Your task to perform on an android device: Search for macbook pro 15 inch on ebay.com, select the first entry, add it to the cart, then select checkout. Image 0: 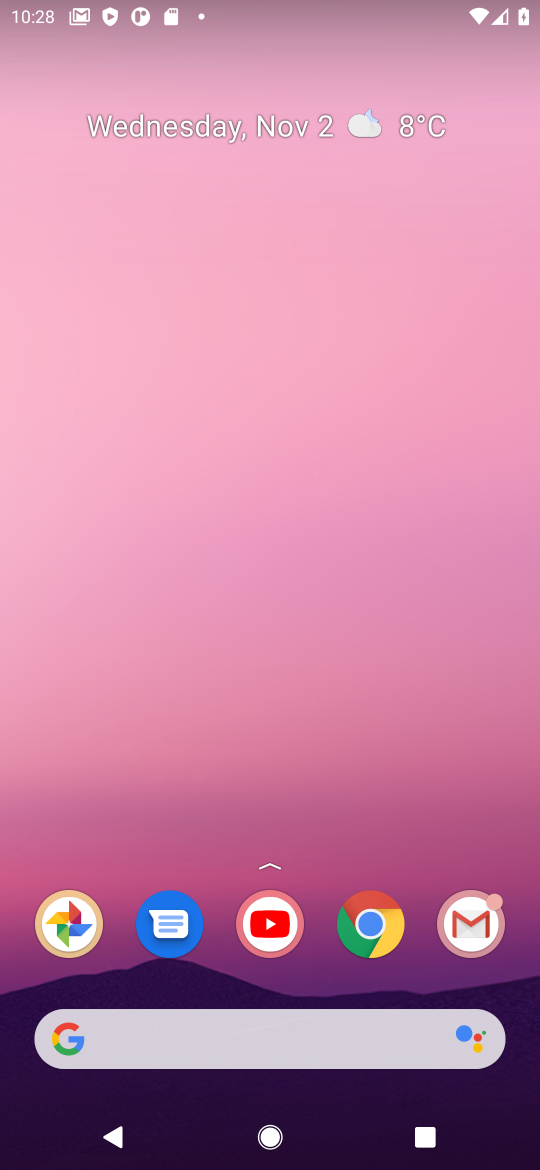
Step 0: click (373, 928)
Your task to perform on an android device: Search for macbook pro 15 inch on ebay.com, select the first entry, add it to the cart, then select checkout. Image 1: 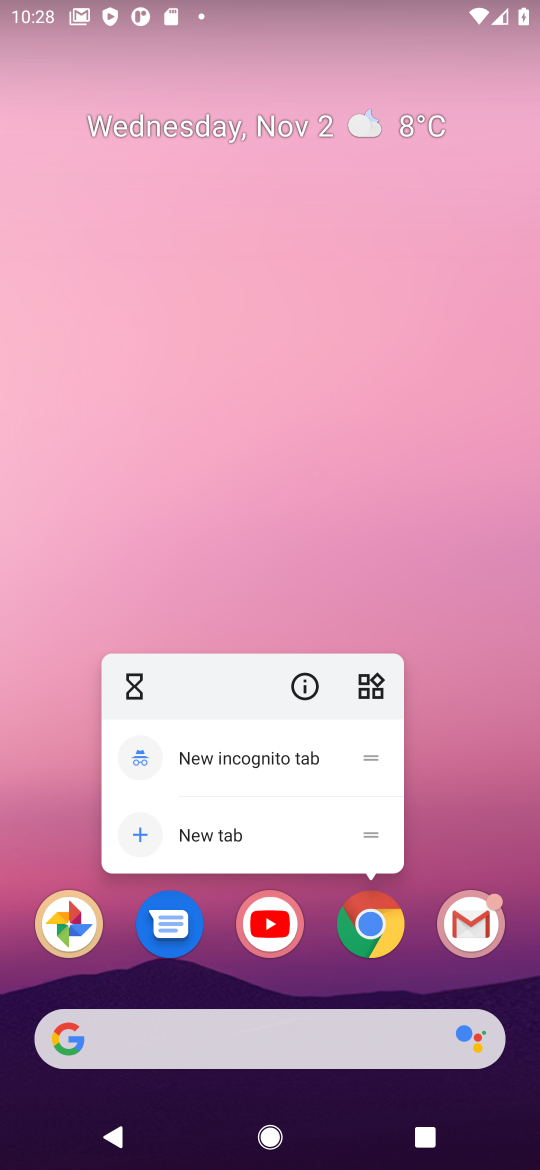
Step 1: click (395, 934)
Your task to perform on an android device: Search for macbook pro 15 inch on ebay.com, select the first entry, add it to the cart, then select checkout. Image 2: 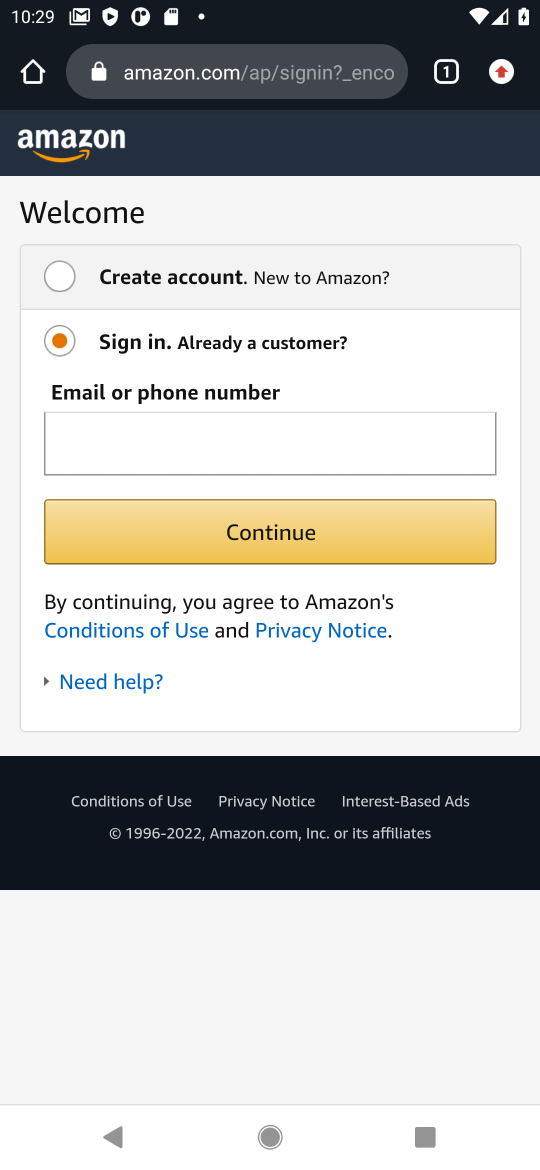
Step 2: click (149, 74)
Your task to perform on an android device: Search for macbook pro 15 inch on ebay.com, select the first entry, add it to the cart, then select checkout. Image 3: 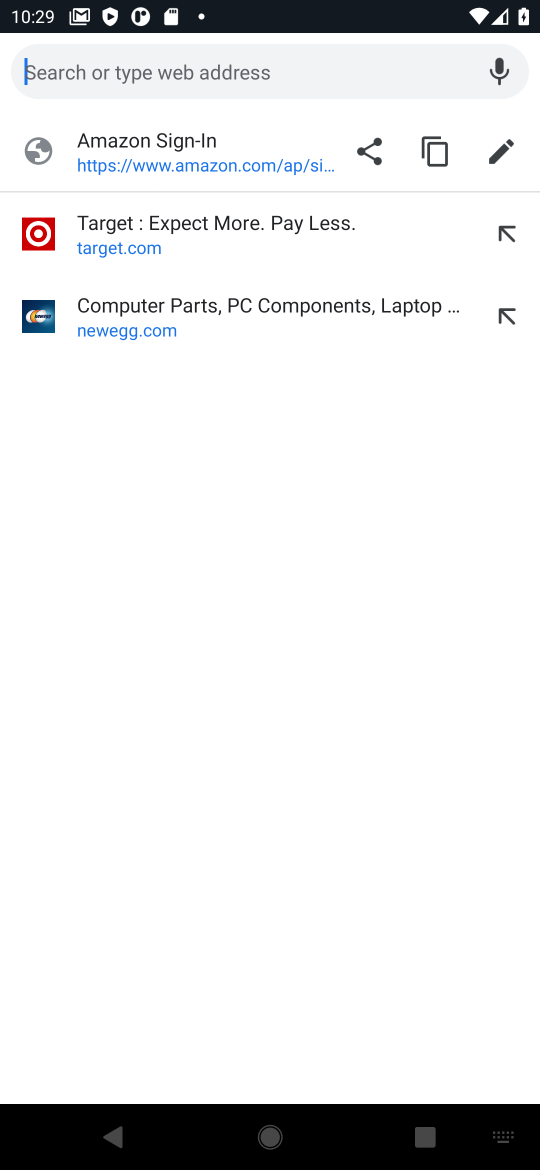
Step 3: type "ebay"
Your task to perform on an android device: Search for macbook pro 15 inch on ebay.com, select the first entry, add it to the cart, then select checkout. Image 4: 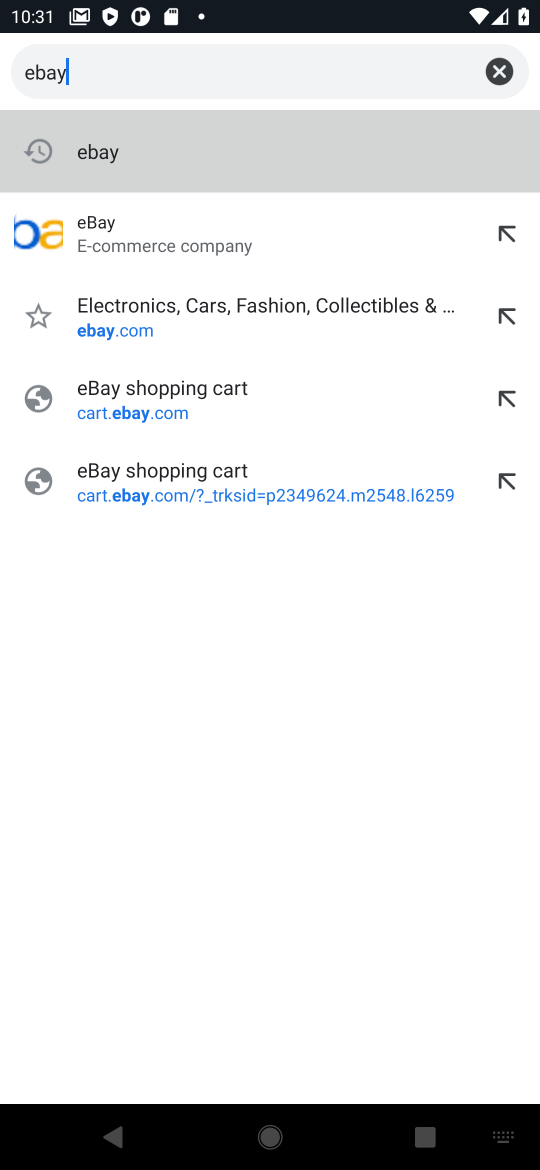
Step 4: click (106, 223)
Your task to perform on an android device: Search for macbook pro 15 inch on ebay.com, select the first entry, add it to the cart, then select checkout. Image 5: 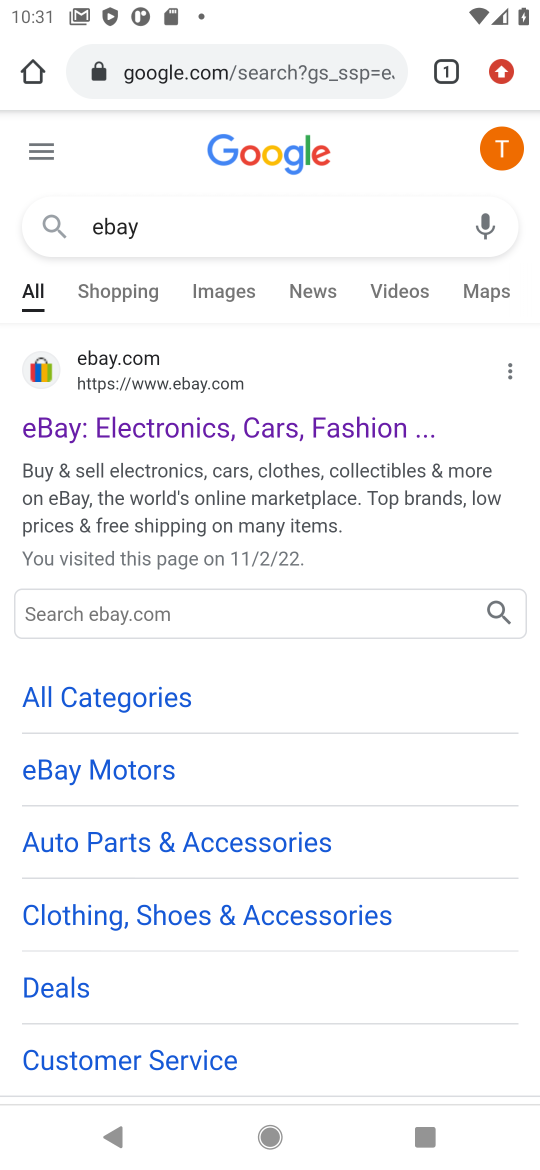
Step 5: click (151, 437)
Your task to perform on an android device: Search for macbook pro 15 inch on ebay.com, select the first entry, add it to the cart, then select checkout. Image 6: 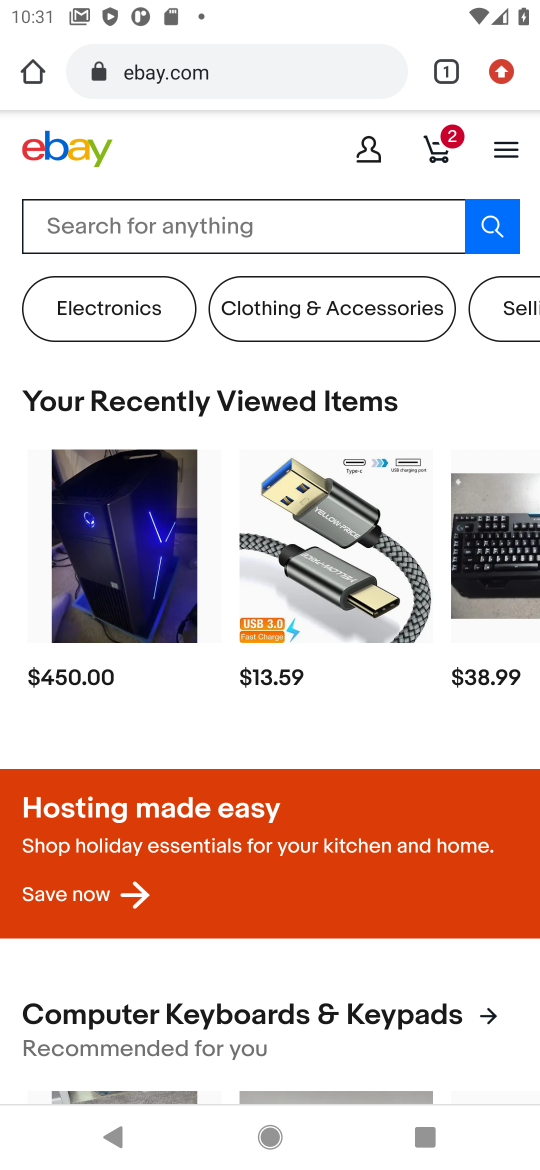
Step 6: click (89, 219)
Your task to perform on an android device: Search for macbook pro 15 inch on ebay.com, select the first entry, add it to the cart, then select checkout. Image 7: 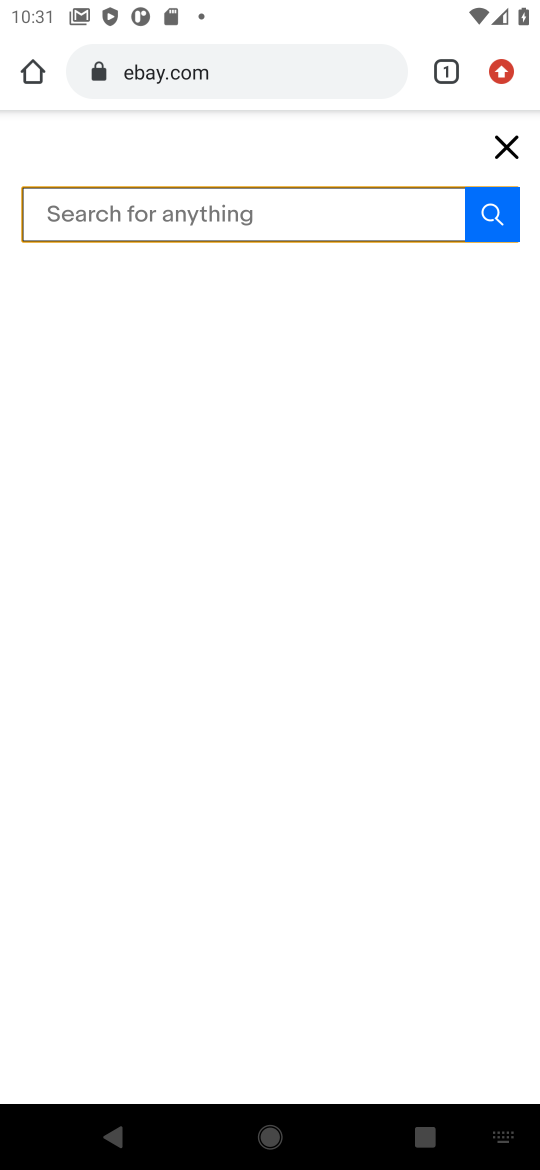
Step 7: type "macbook pro 15"
Your task to perform on an android device: Search for macbook pro 15 inch on ebay.com, select the first entry, add it to the cart, then select checkout. Image 8: 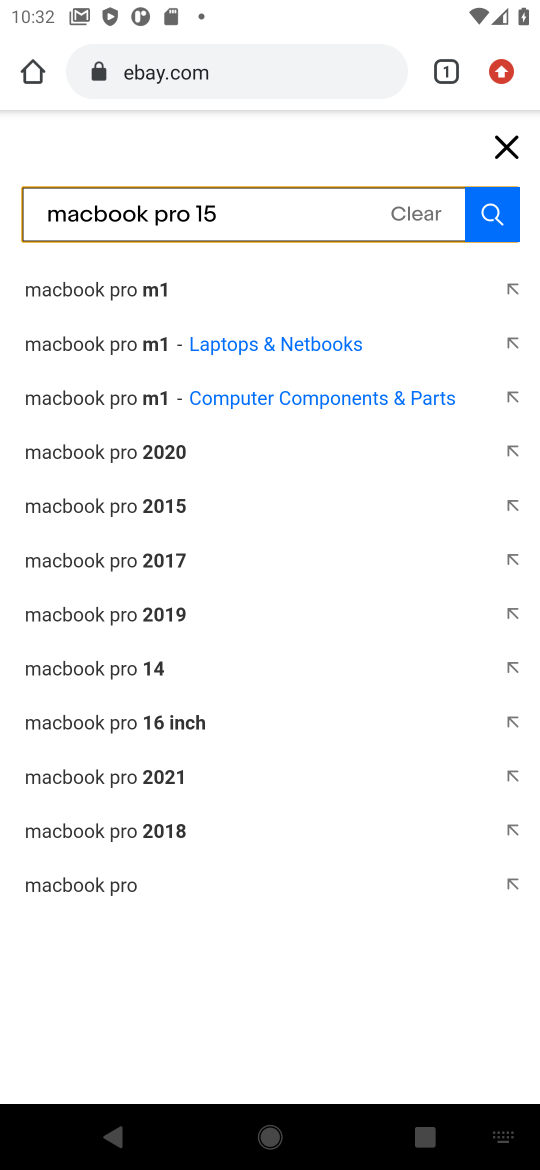
Step 8: click (42, 286)
Your task to perform on an android device: Search for macbook pro 15 inch on ebay.com, select the first entry, add it to the cart, then select checkout. Image 9: 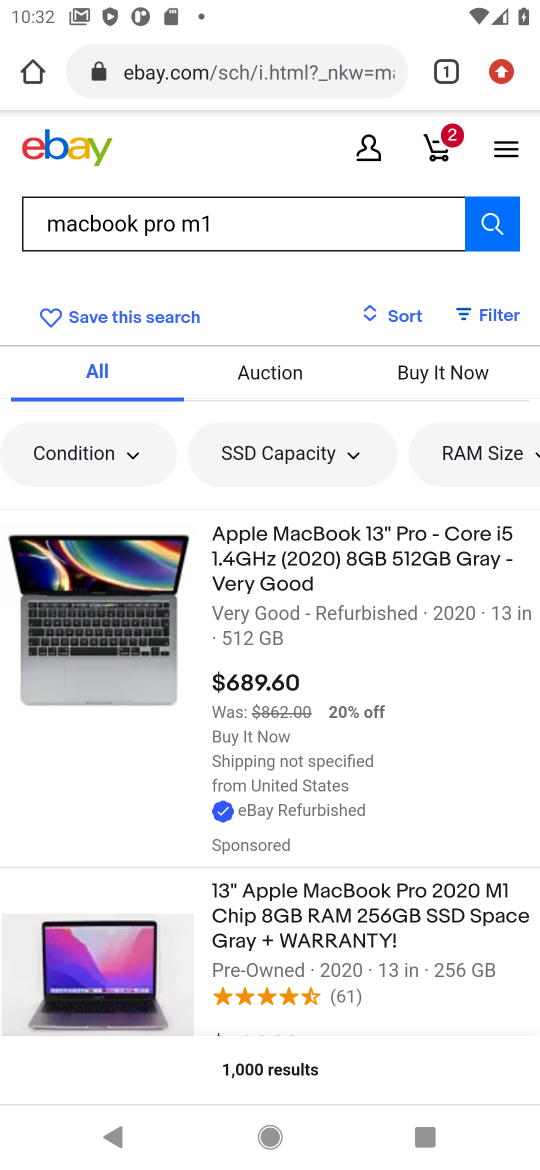
Step 9: click (279, 596)
Your task to perform on an android device: Search for macbook pro 15 inch on ebay.com, select the first entry, add it to the cart, then select checkout. Image 10: 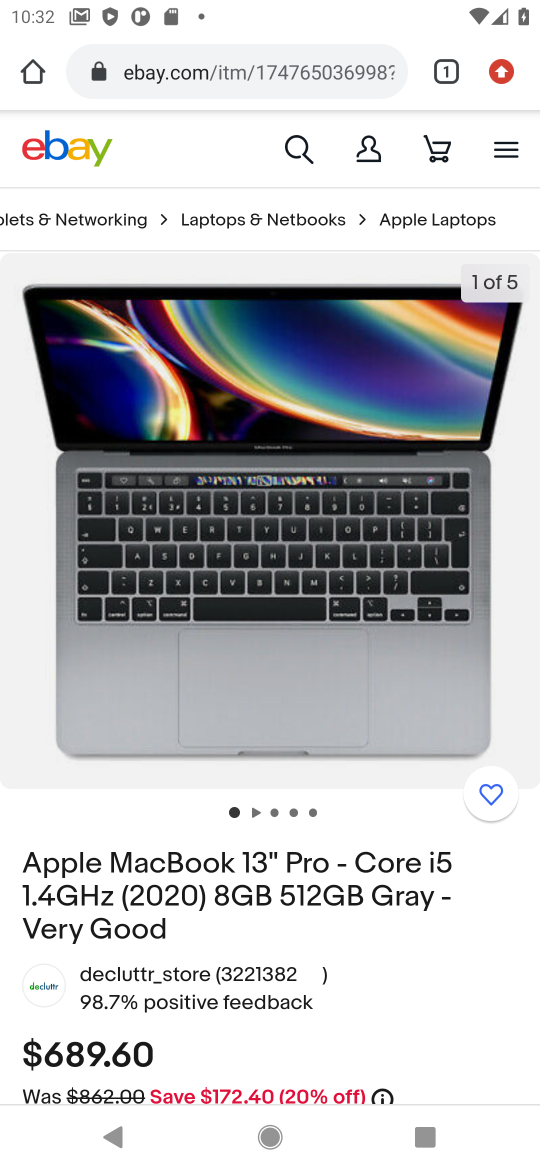
Step 10: drag from (335, 982) to (343, 235)
Your task to perform on an android device: Search for macbook pro 15 inch on ebay.com, select the first entry, add it to the cart, then select checkout. Image 11: 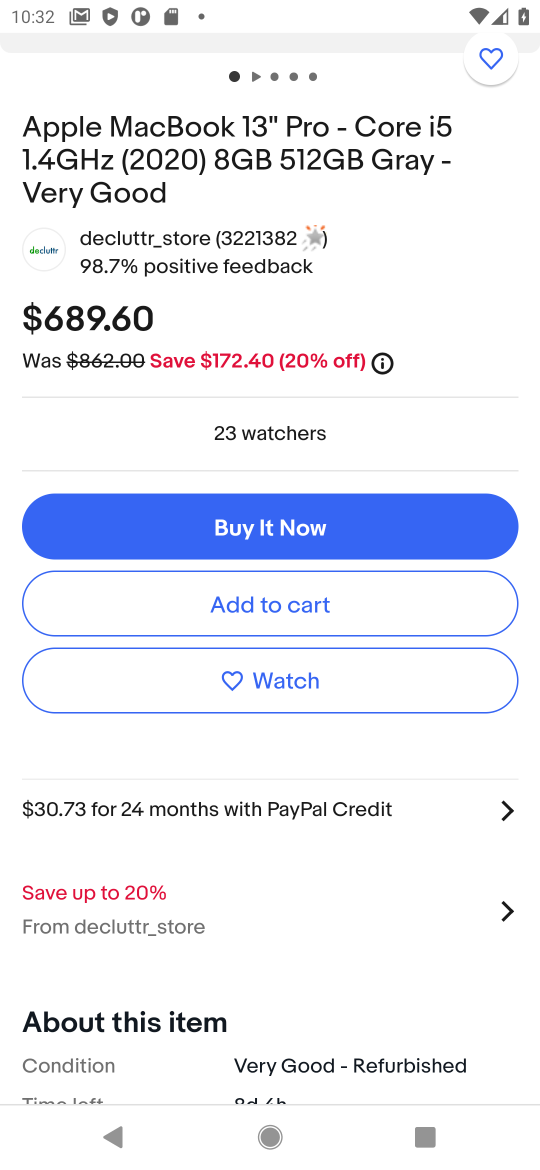
Step 11: click (248, 615)
Your task to perform on an android device: Search for macbook pro 15 inch on ebay.com, select the first entry, add it to the cart, then select checkout. Image 12: 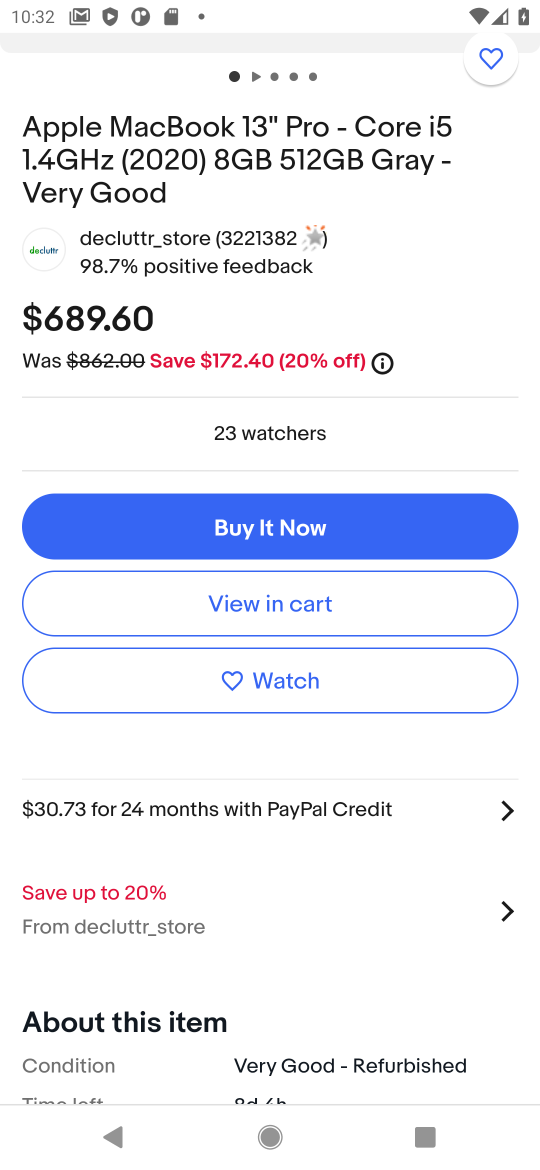
Step 12: click (247, 615)
Your task to perform on an android device: Search for macbook pro 15 inch on ebay.com, select the first entry, add it to the cart, then select checkout. Image 13: 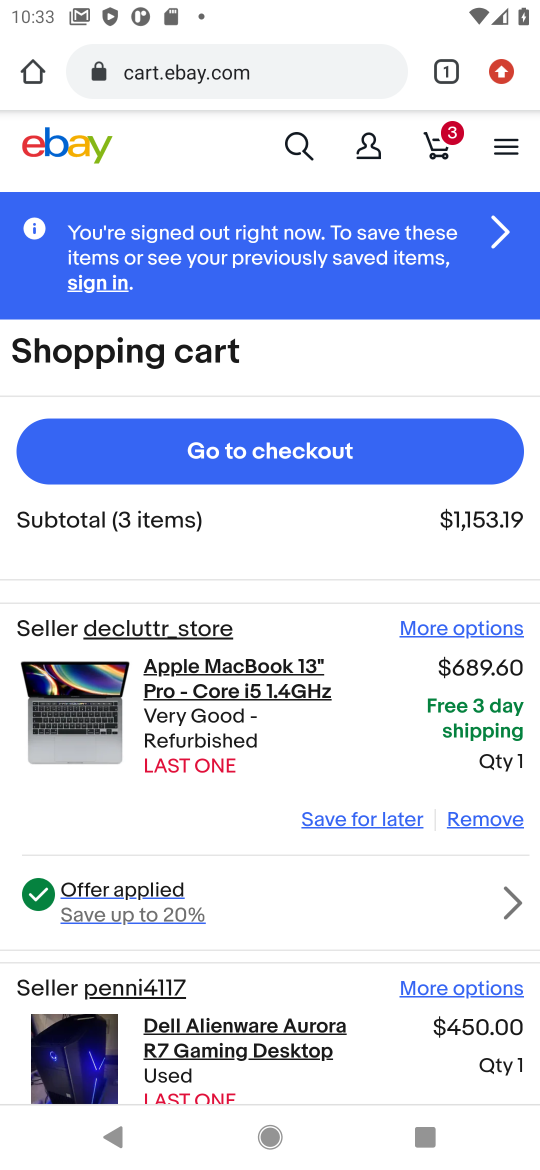
Step 13: click (239, 448)
Your task to perform on an android device: Search for macbook pro 15 inch on ebay.com, select the first entry, add it to the cart, then select checkout. Image 14: 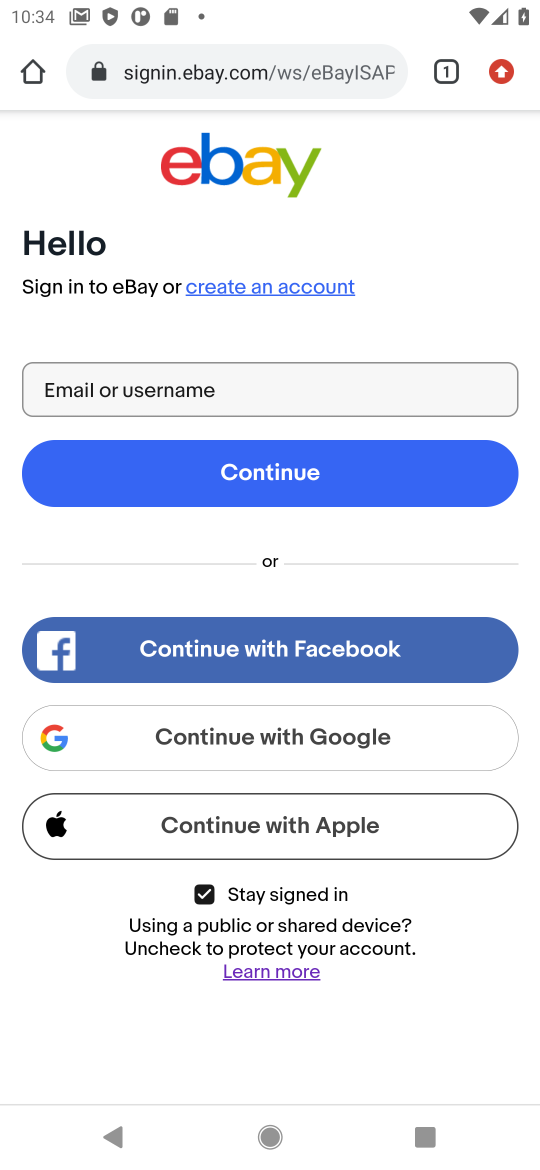
Step 14: task complete